Your task to perform on an android device: toggle translation in the chrome app Image 0: 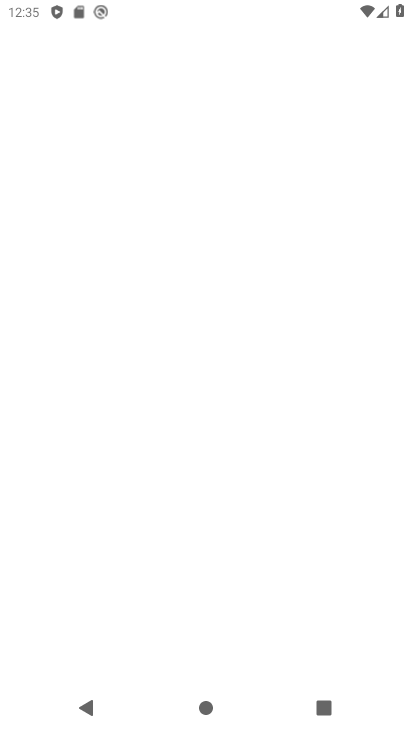
Step 0: press home button
Your task to perform on an android device: toggle translation in the chrome app Image 1: 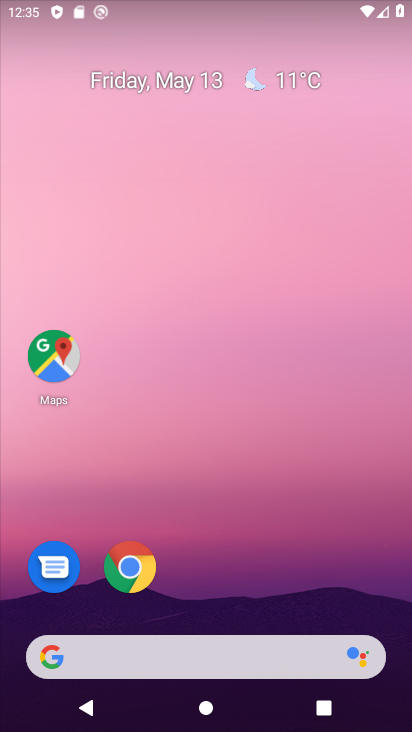
Step 1: click (144, 577)
Your task to perform on an android device: toggle translation in the chrome app Image 2: 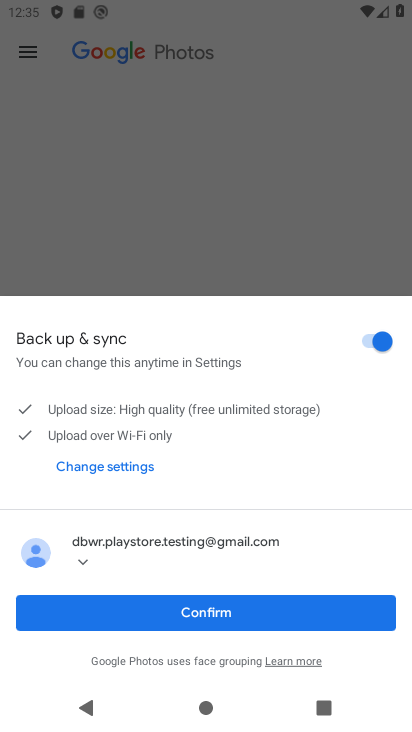
Step 2: click (196, 613)
Your task to perform on an android device: toggle translation in the chrome app Image 3: 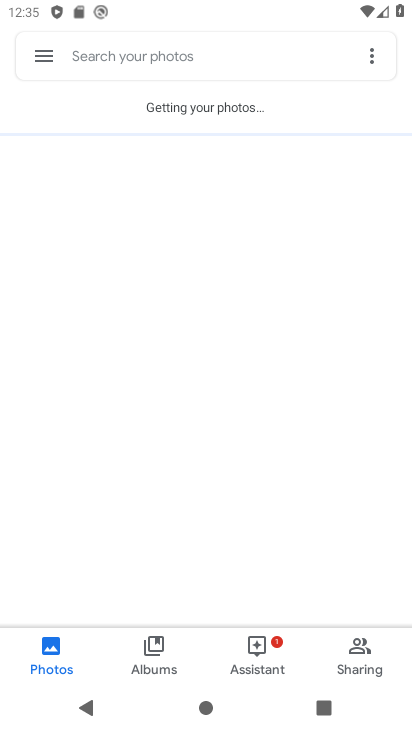
Step 3: click (369, 59)
Your task to perform on an android device: toggle translation in the chrome app Image 4: 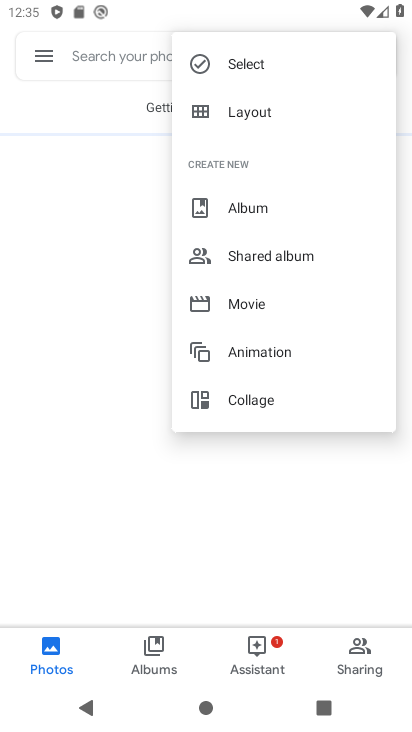
Step 4: press home button
Your task to perform on an android device: toggle translation in the chrome app Image 5: 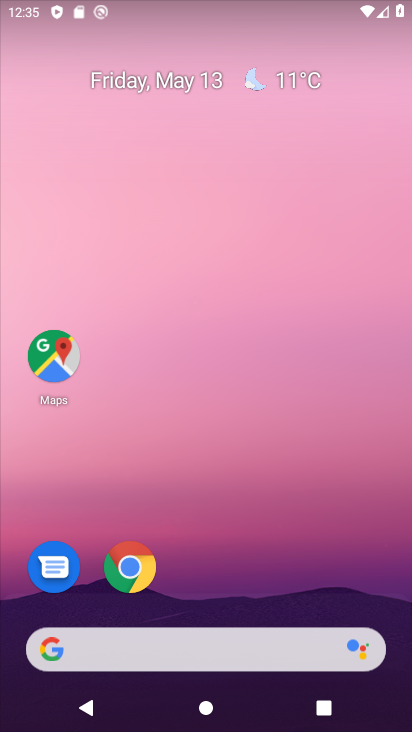
Step 5: click (126, 566)
Your task to perform on an android device: toggle translation in the chrome app Image 6: 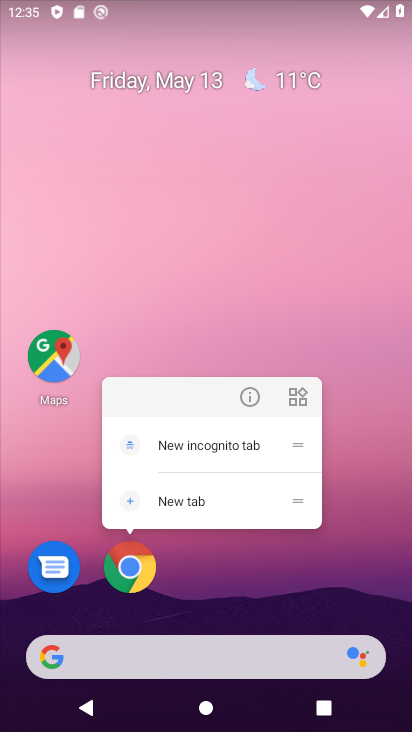
Step 6: click (125, 580)
Your task to perform on an android device: toggle translation in the chrome app Image 7: 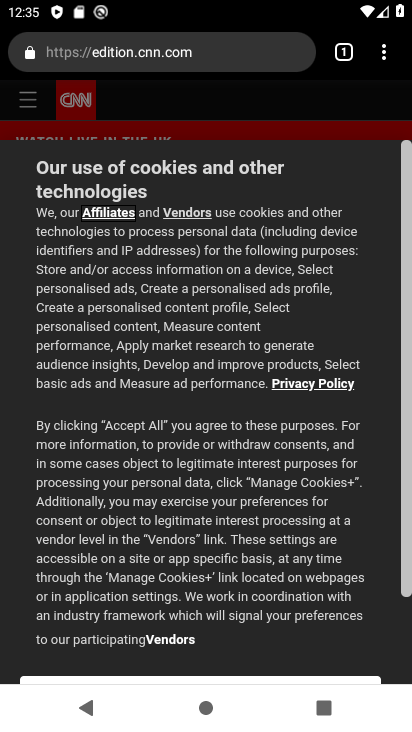
Step 7: click (387, 55)
Your task to perform on an android device: toggle translation in the chrome app Image 8: 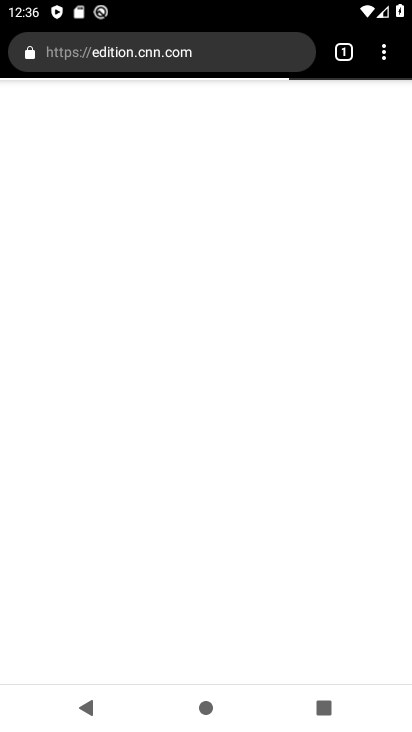
Step 8: click (387, 56)
Your task to perform on an android device: toggle translation in the chrome app Image 9: 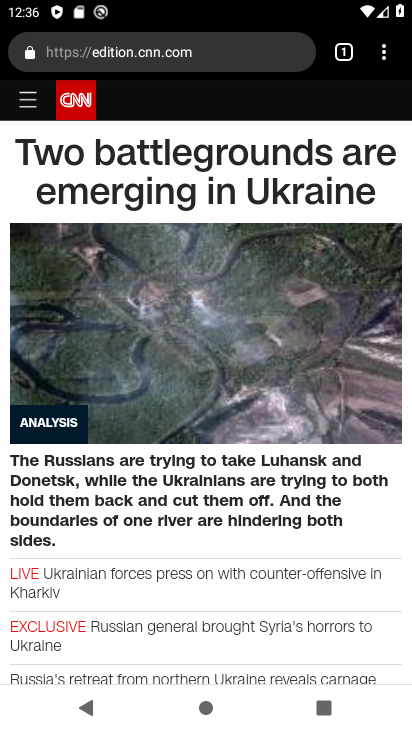
Step 9: click (379, 58)
Your task to perform on an android device: toggle translation in the chrome app Image 10: 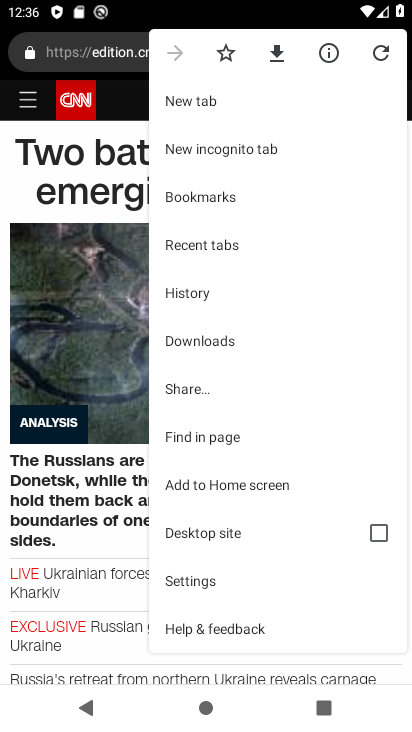
Step 10: click (196, 578)
Your task to perform on an android device: toggle translation in the chrome app Image 11: 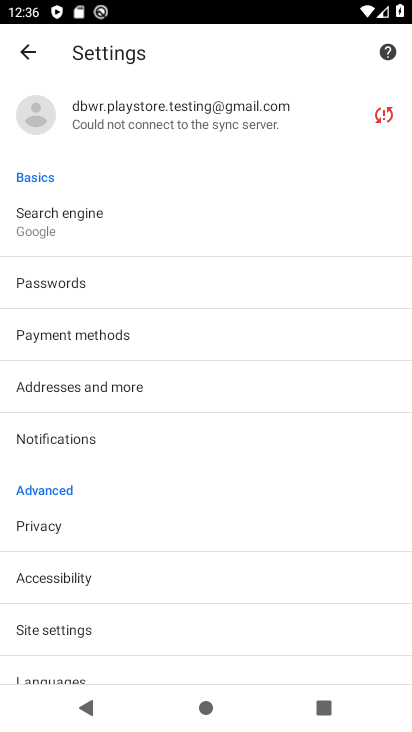
Step 11: drag from (92, 646) to (91, 399)
Your task to perform on an android device: toggle translation in the chrome app Image 12: 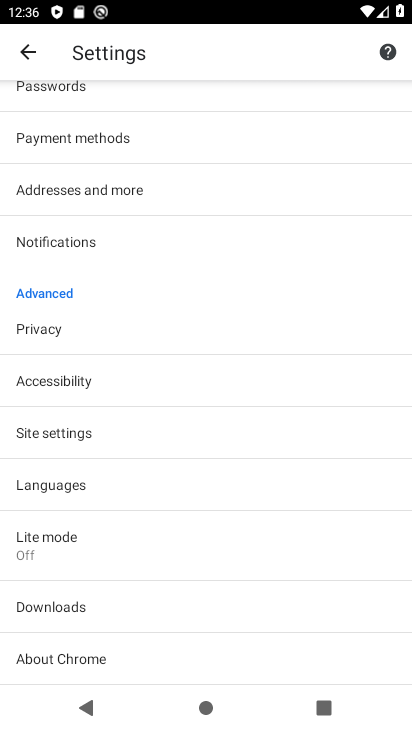
Step 12: click (34, 495)
Your task to perform on an android device: toggle translation in the chrome app Image 13: 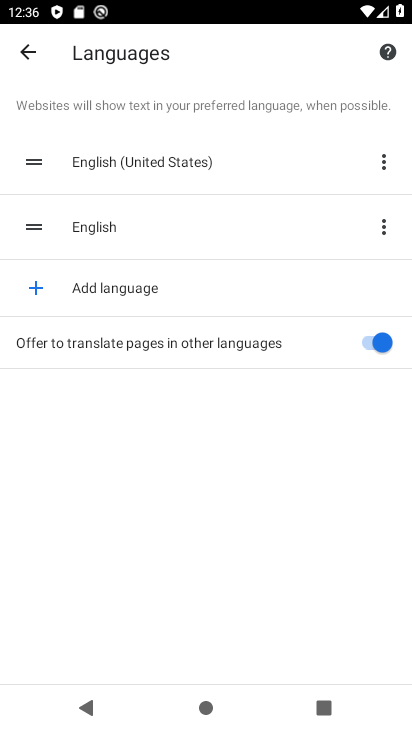
Step 13: click (364, 345)
Your task to perform on an android device: toggle translation in the chrome app Image 14: 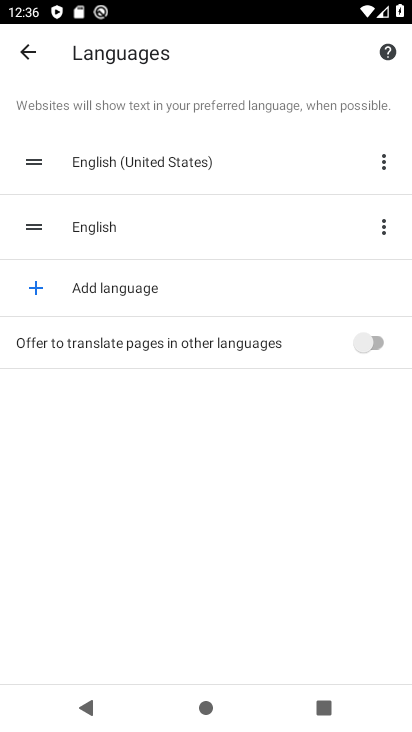
Step 14: task complete